Your task to perform on an android device: choose inbox layout in the gmail app Image 0: 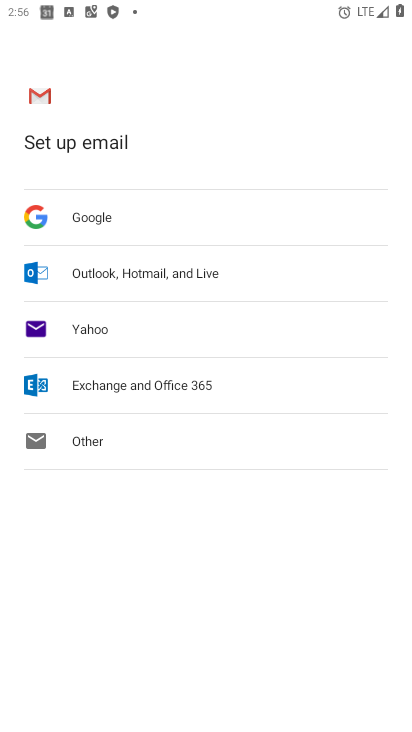
Step 0: press home button
Your task to perform on an android device: choose inbox layout in the gmail app Image 1: 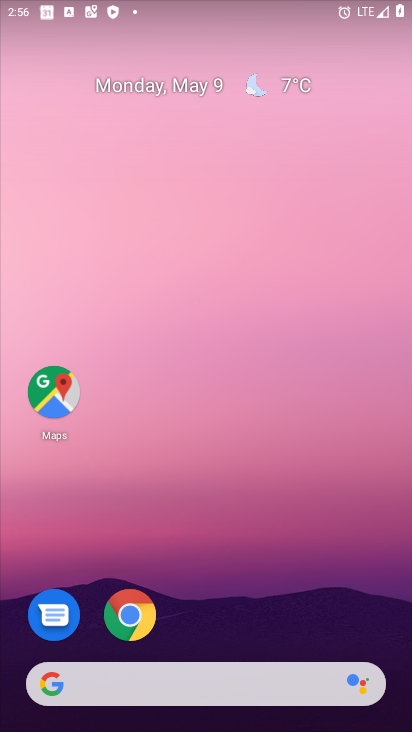
Step 1: drag from (352, 642) to (311, 25)
Your task to perform on an android device: choose inbox layout in the gmail app Image 2: 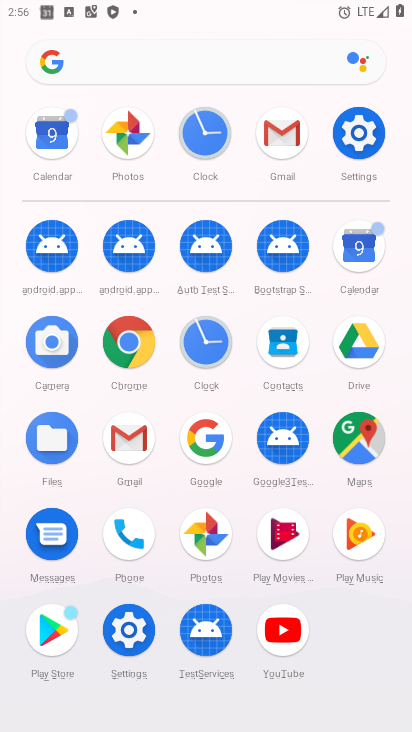
Step 2: click (127, 437)
Your task to perform on an android device: choose inbox layout in the gmail app Image 3: 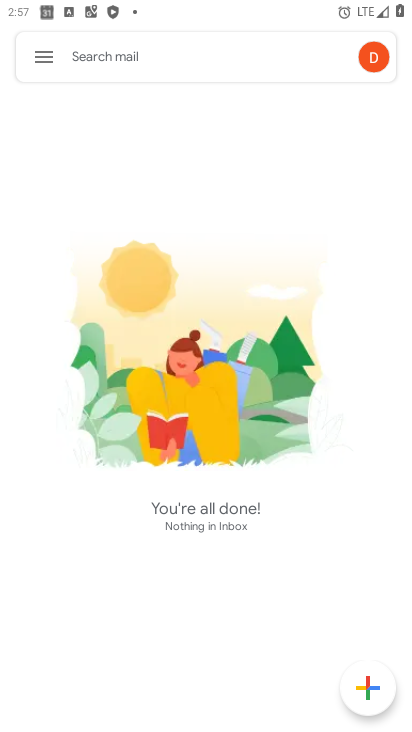
Step 3: click (40, 58)
Your task to perform on an android device: choose inbox layout in the gmail app Image 4: 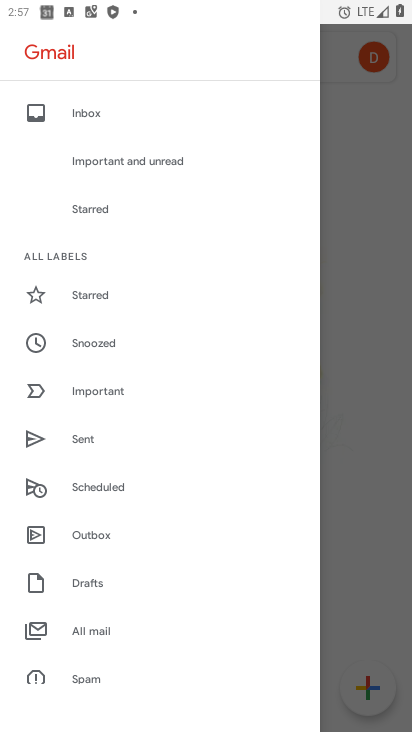
Step 4: drag from (173, 576) to (225, 139)
Your task to perform on an android device: choose inbox layout in the gmail app Image 5: 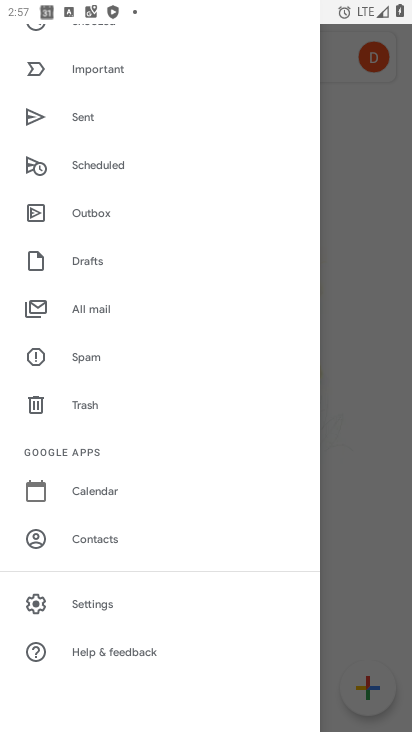
Step 5: click (84, 605)
Your task to perform on an android device: choose inbox layout in the gmail app Image 6: 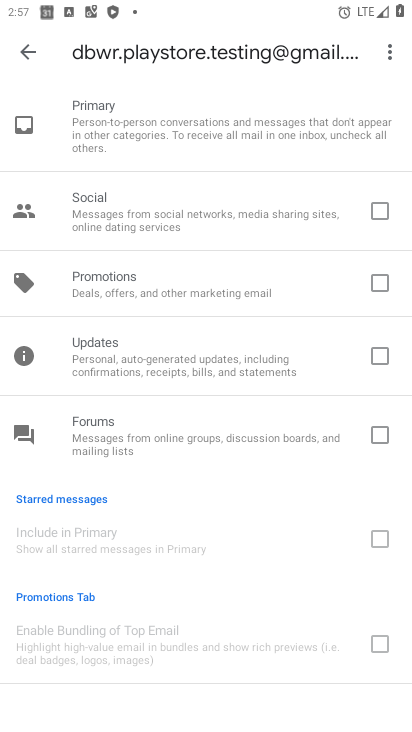
Step 6: press back button
Your task to perform on an android device: choose inbox layout in the gmail app Image 7: 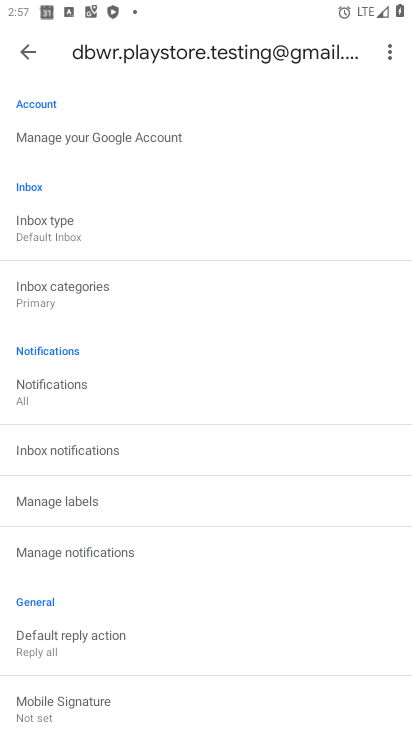
Step 7: click (51, 234)
Your task to perform on an android device: choose inbox layout in the gmail app Image 8: 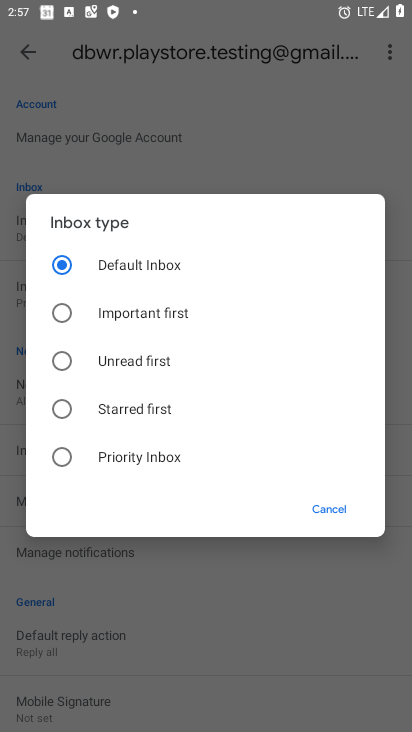
Step 8: click (59, 405)
Your task to perform on an android device: choose inbox layout in the gmail app Image 9: 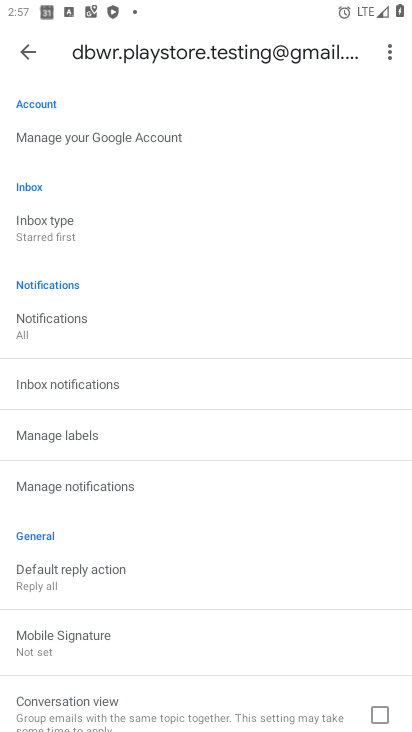
Step 9: task complete